Your task to perform on an android device: open the mobile data screen to see how much data has been used Image 0: 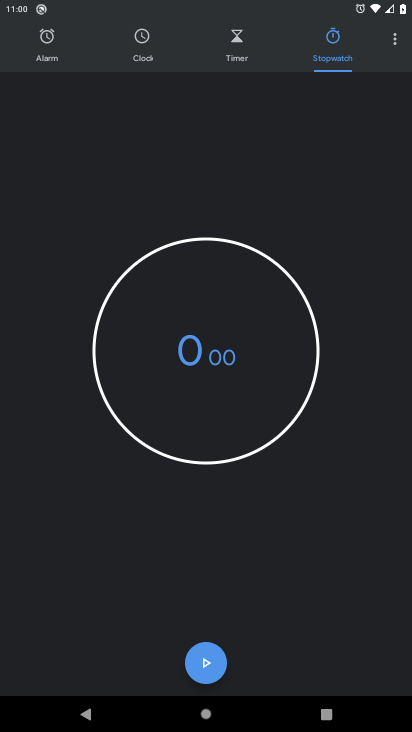
Step 0: press home button
Your task to perform on an android device: open the mobile data screen to see how much data has been used Image 1: 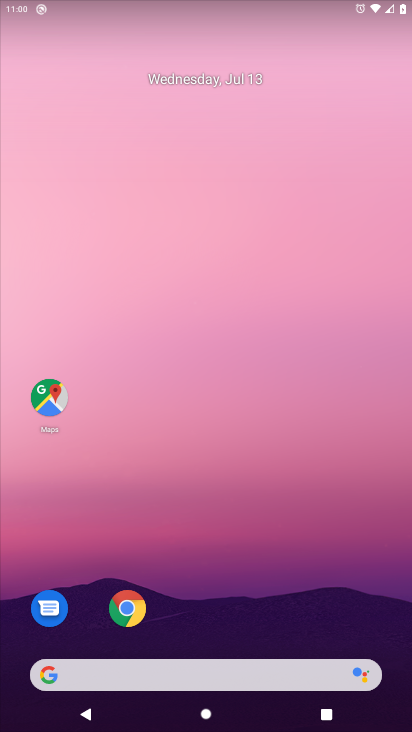
Step 1: drag from (67, 641) to (161, 261)
Your task to perform on an android device: open the mobile data screen to see how much data has been used Image 2: 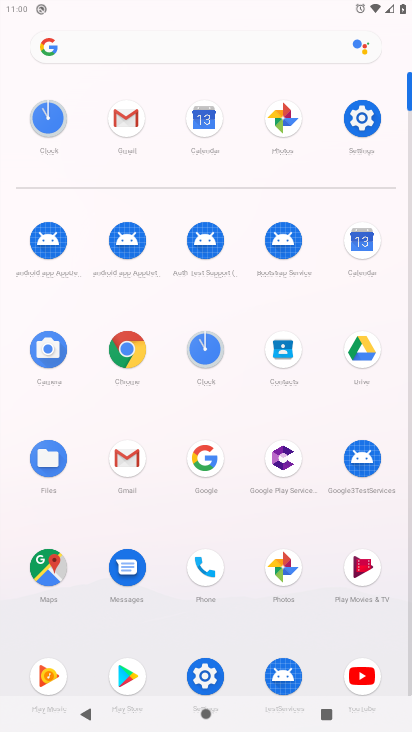
Step 2: click (188, 663)
Your task to perform on an android device: open the mobile data screen to see how much data has been used Image 3: 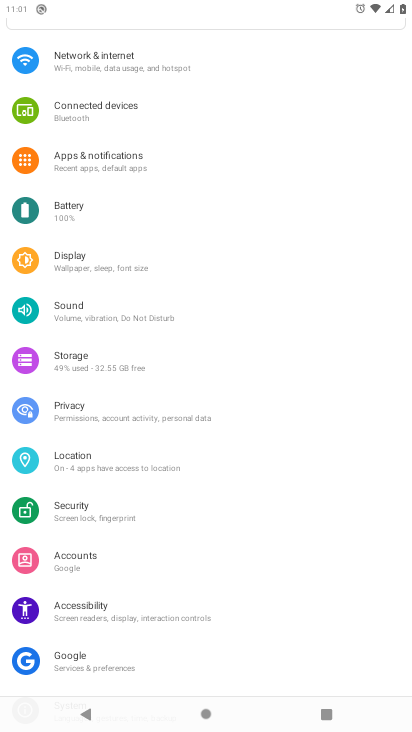
Step 3: click (101, 57)
Your task to perform on an android device: open the mobile data screen to see how much data has been used Image 4: 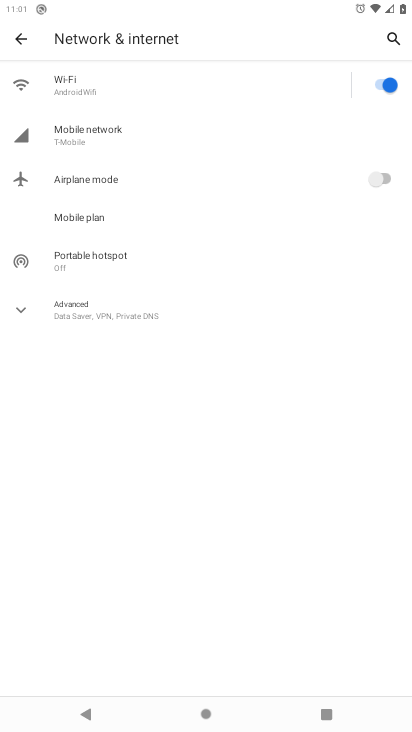
Step 4: click (104, 132)
Your task to perform on an android device: open the mobile data screen to see how much data has been used Image 5: 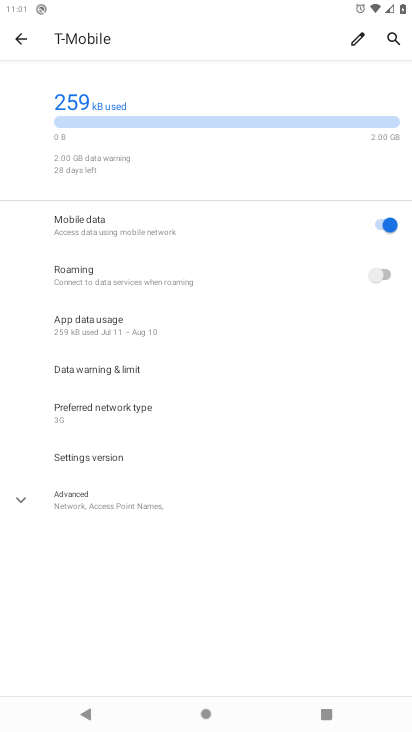
Step 5: task complete